Your task to perform on an android device: Go to internet settings Image 0: 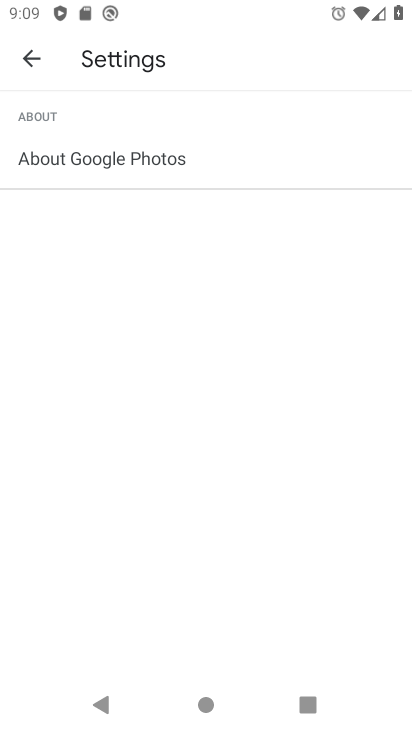
Step 0: click (28, 48)
Your task to perform on an android device: Go to internet settings Image 1: 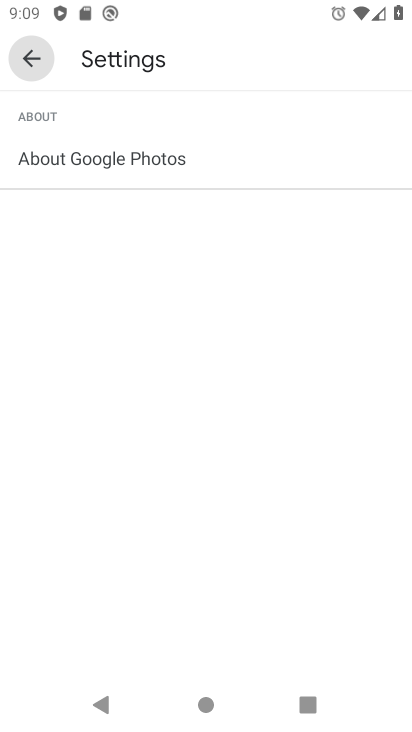
Step 1: click (27, 53)
Your task to perform on an android device: Go to internet settings Image 2: 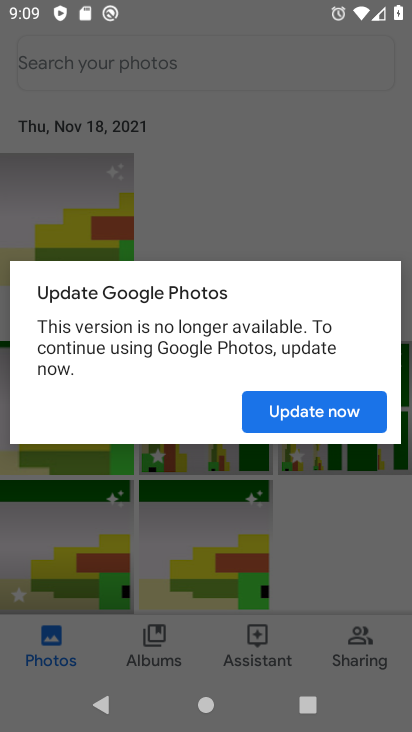
Step 2: click (27, 53)
Your task to perform on an android device: Go to internet settings Image 3: 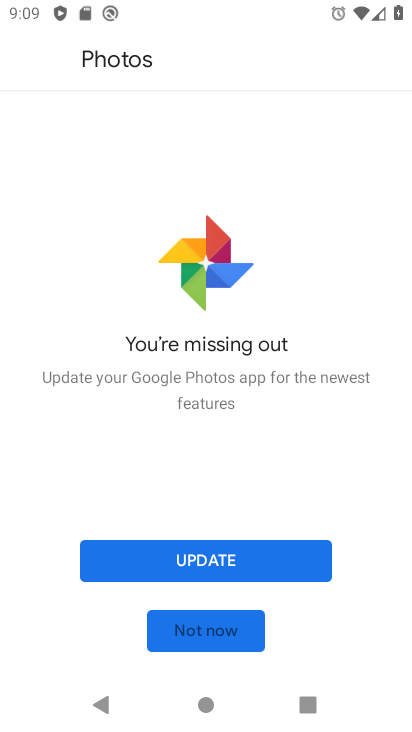
Step 3: click (202, 638)
Your task to perform on an android device: Go to internet settings Image 4: 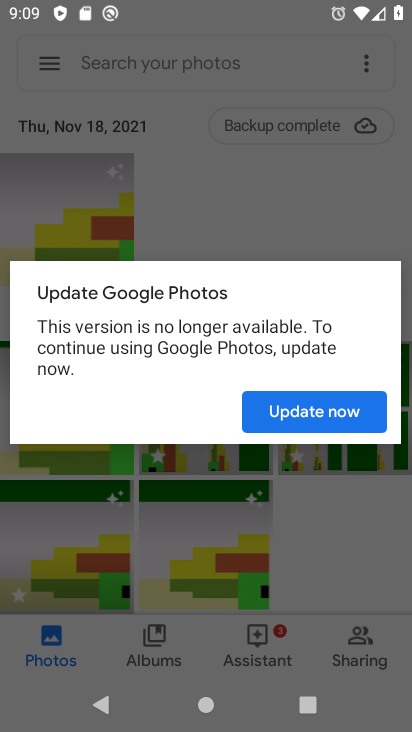
Step 4: click (319, 411)
Your task to perform on an android device: Go to internet settings Image 5: 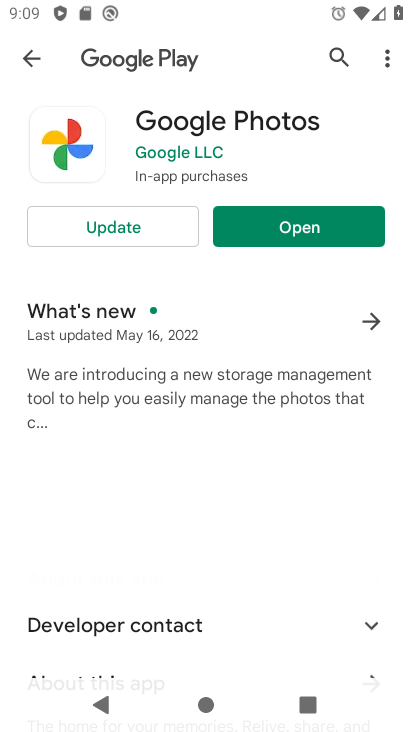
Step 5: press home button
Your task to perform on an android device: Go to internet settings Image 6: 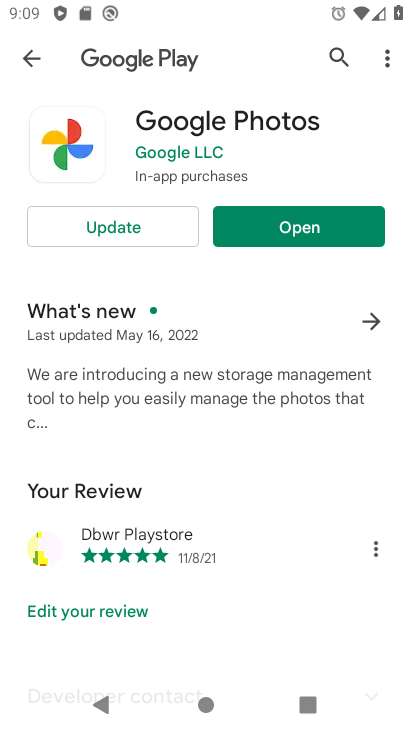
Step 6: press home button
Your task to perform on an android device: Go to internet settings Image 7: 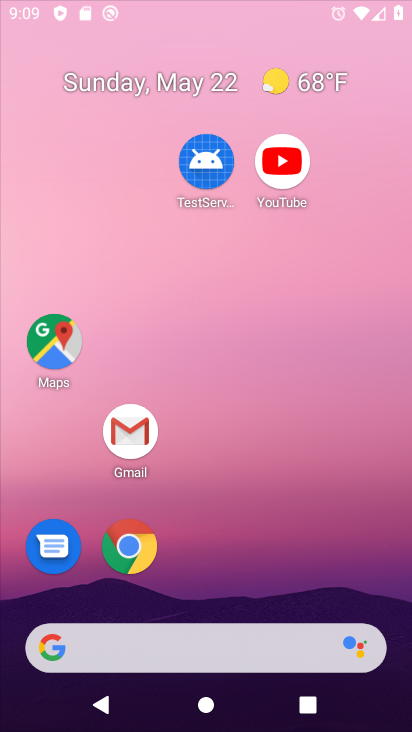
Step 7: press home button
Your task to perform on an android device: Go to internet settings Image 8: 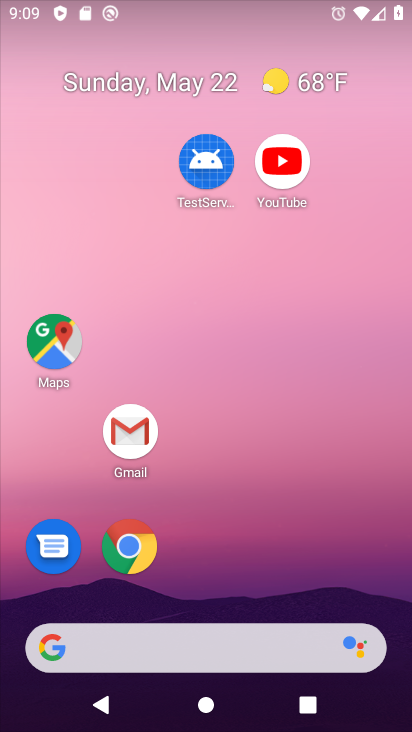
Step 8: press back button
Your task to perform on an android device: Go to internet settings Image 9: 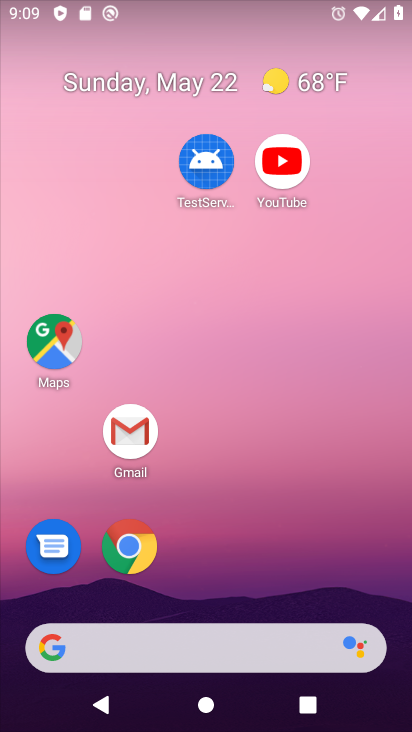
Step 9: press back button
Your task to perform on an android device: Go to internet settings Image 10: 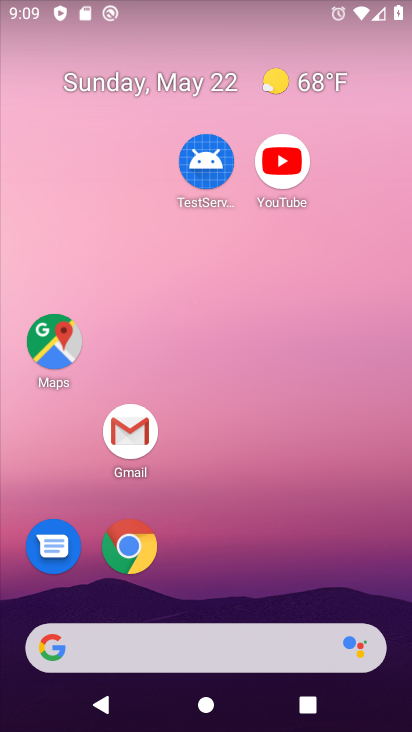
Step 10: drag from (233, 651) to (153, 12)
Your task to perform on an android device: Go to internet settings Image 11: 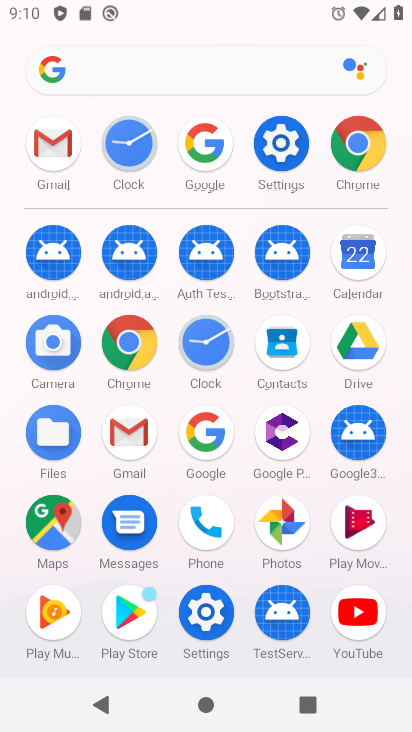
Step 11: click (281, 143)
Your task to perform on an android device: Go to internet settings Image 12: 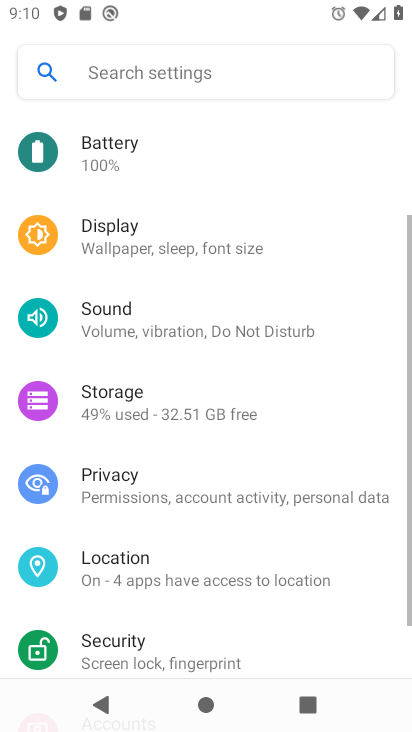
Step 12: click (284, 142)
Your task to perform on an android device: Go to internet settings Image 13: 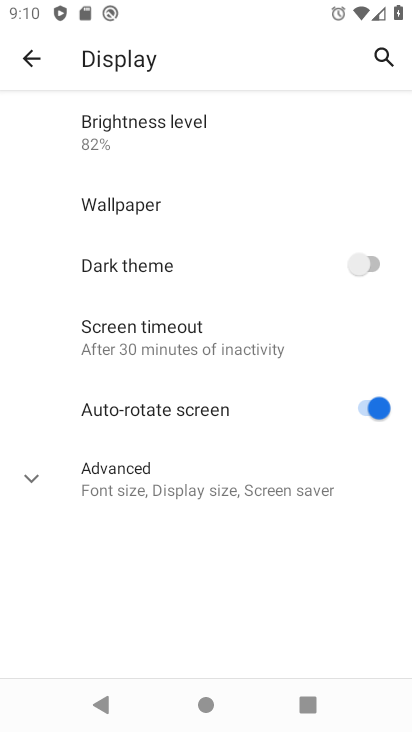
Step 13: click (29, 69)
Your task to perform on an android device: Go to internet settings Image 14: 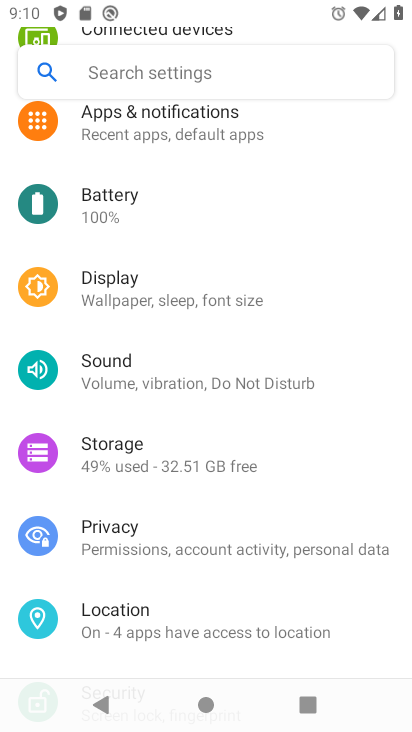
Step 14: drag from (126, 139) to (224, 456)
Your task to perform on an android device: Go to internet settings Image 15: 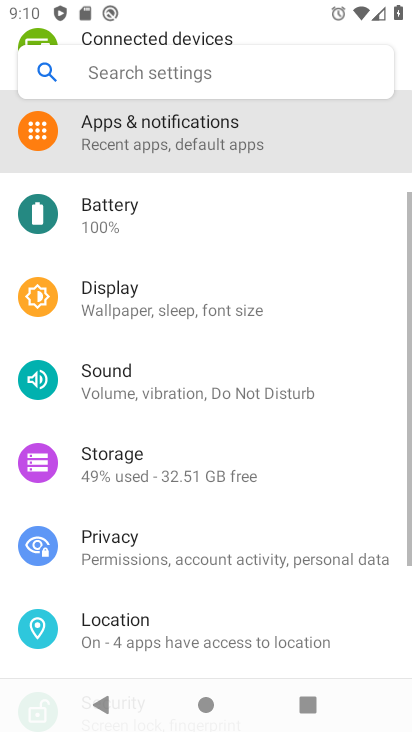
Step 15: drag from (220, 134) to (245, 385)
Your task to perform on an android device: Go to internet settings Image 16: 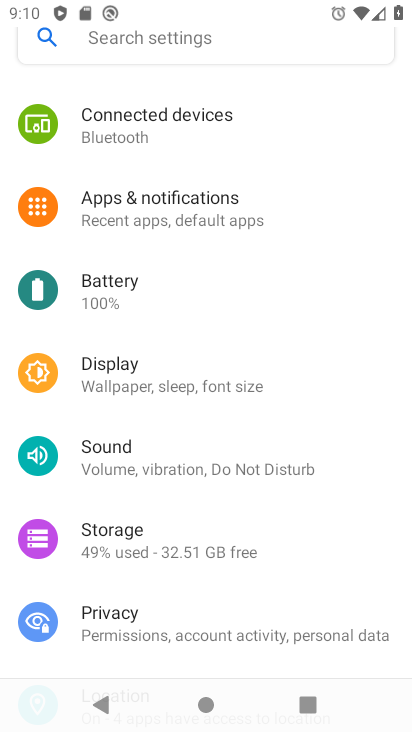
Step 16: drag from (166, 151) to (262, 638)
Your task to perform on an android device: Go to internet settings Image 17: 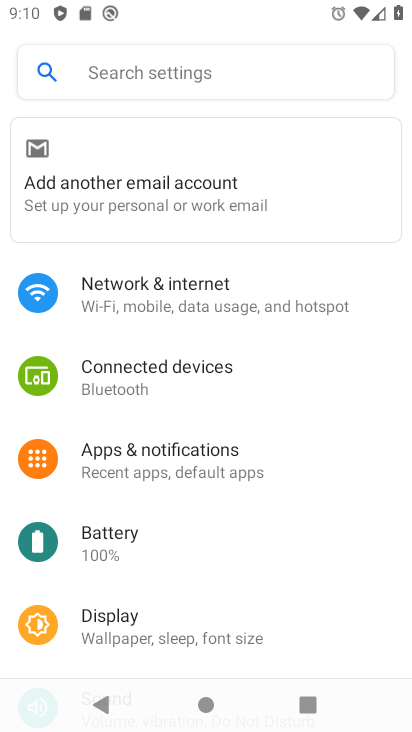
Step 17: click (163, 284)
Your task to perform on an android device: Go to internet settings Image 18: 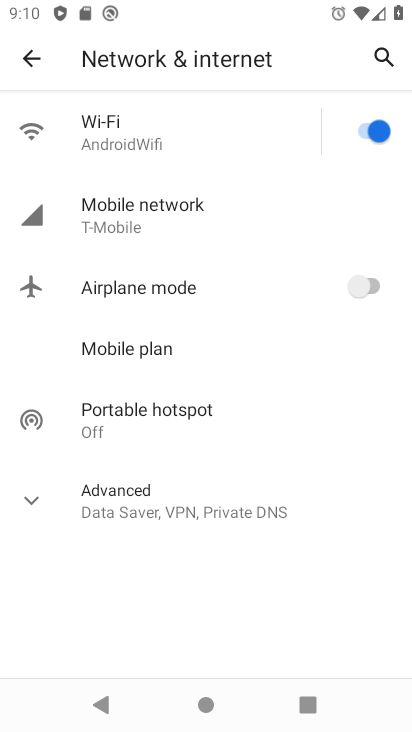
Step 18: task complete